Your task to perform on an android device: Open battery settings Image 0: 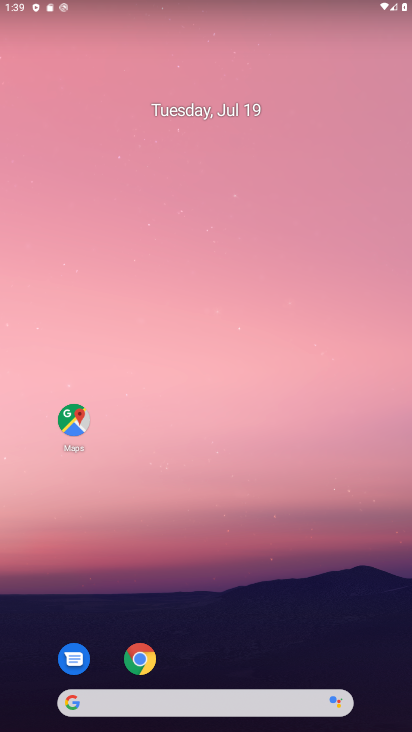
Step 0: drag from (211, 651) to (279, 187)
Your task to perform on an android device: Open battery settings Image 1: 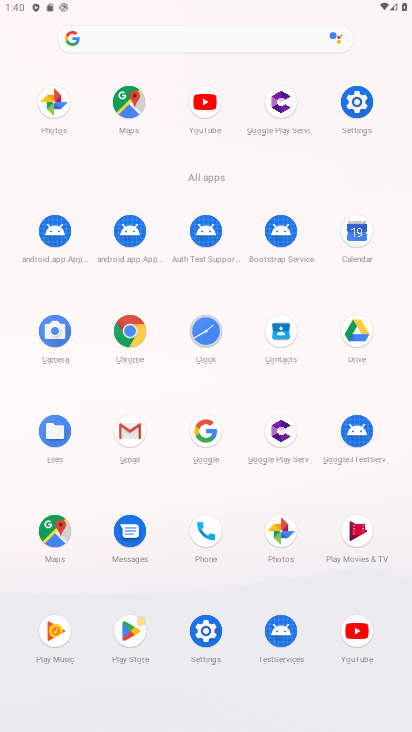
Step 1: click (356, 105)
Your task to perform on an android device: Open battery settings Image 2: 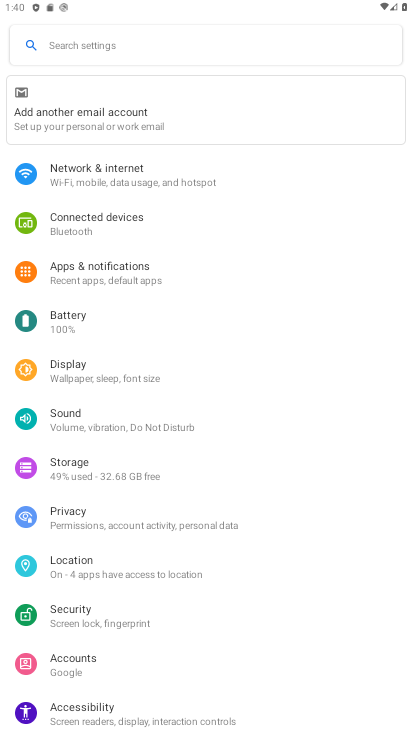
Step 2: click (87, 319)
Your task to perform on an android device: Open battery settings Image 3: 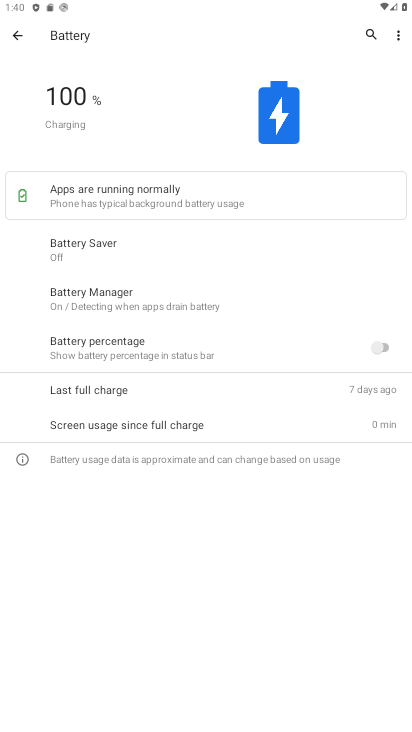
Step 3: task complete